Your task to perform on an android device: Clear the cart on walmart.com. Image 0: 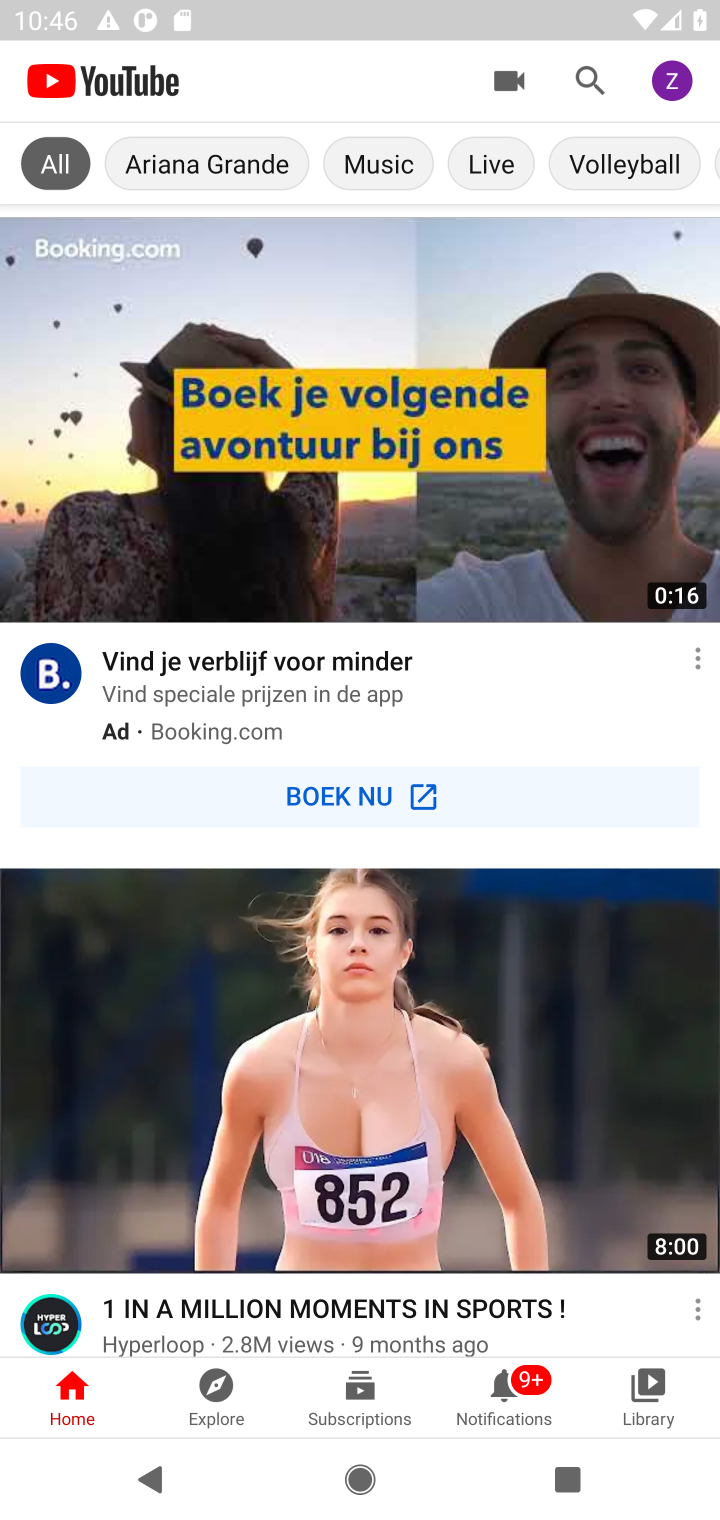
Step 0: press home button
Your task to perform on an android device: Clear the cart on walmart.com. Image 1: 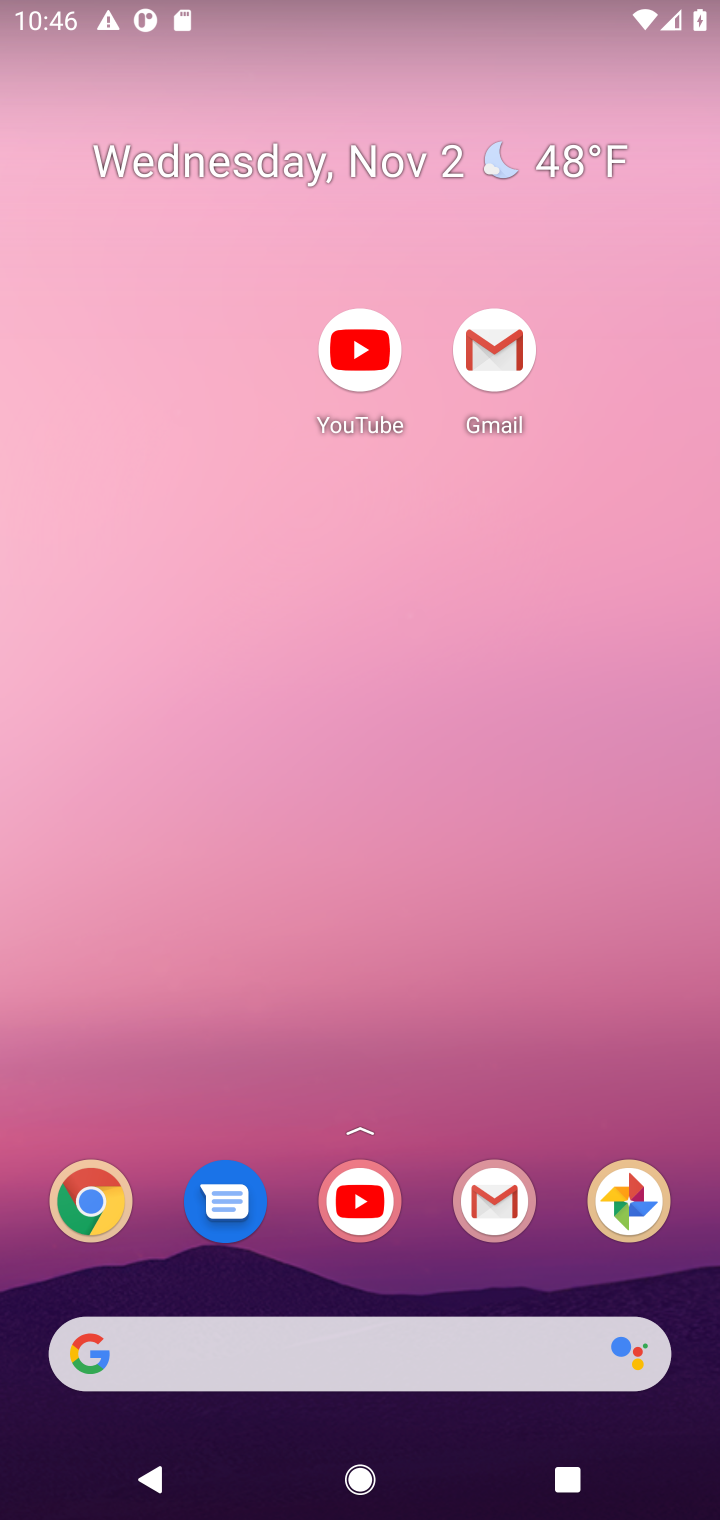
Step 1: drag from (280, 1266) to (165, 492)
Your task to perform on an android device: Clear the cart on walmart.com. Image 2: 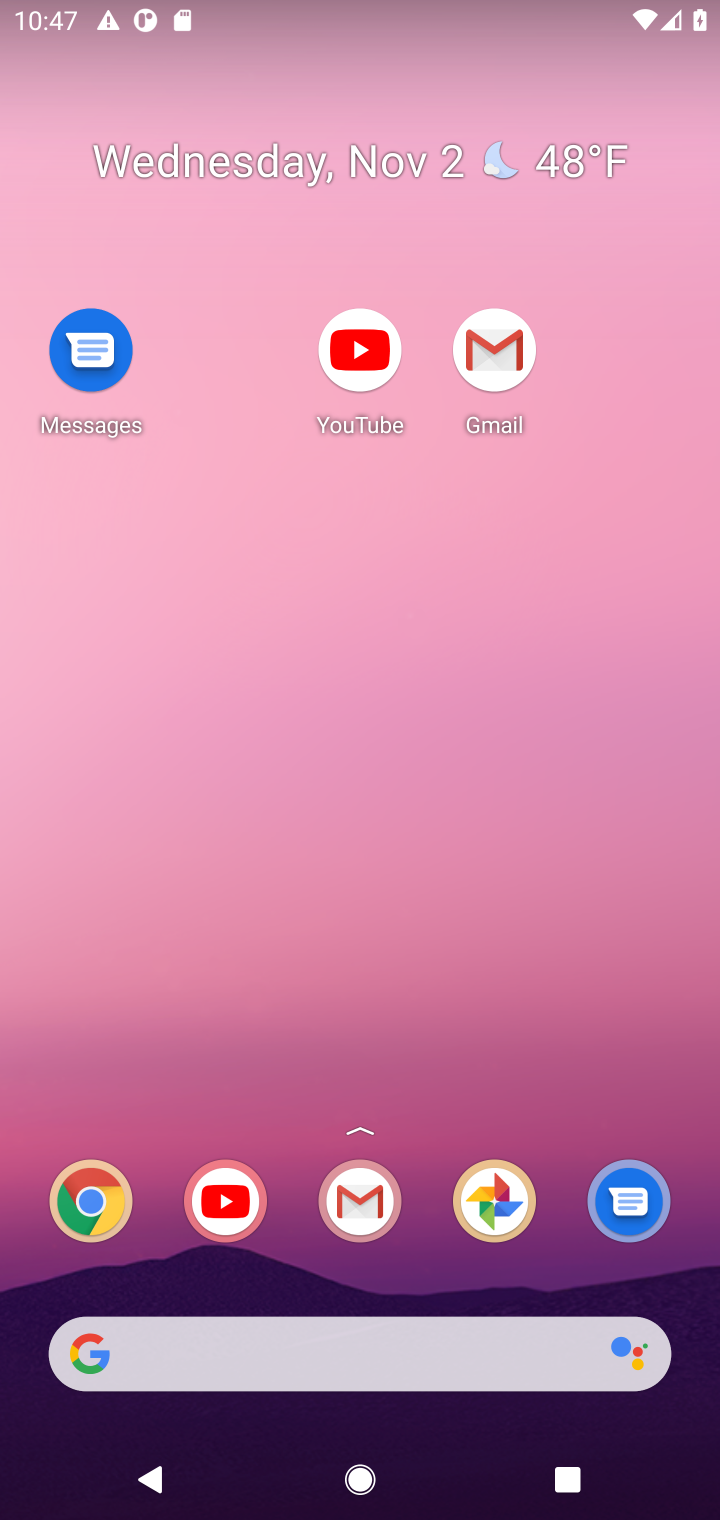
Step 2: drag from (437, 1300) to (503, 489)
Your task to perform on an android device: Clear the cart on walmart.com. Image 3: 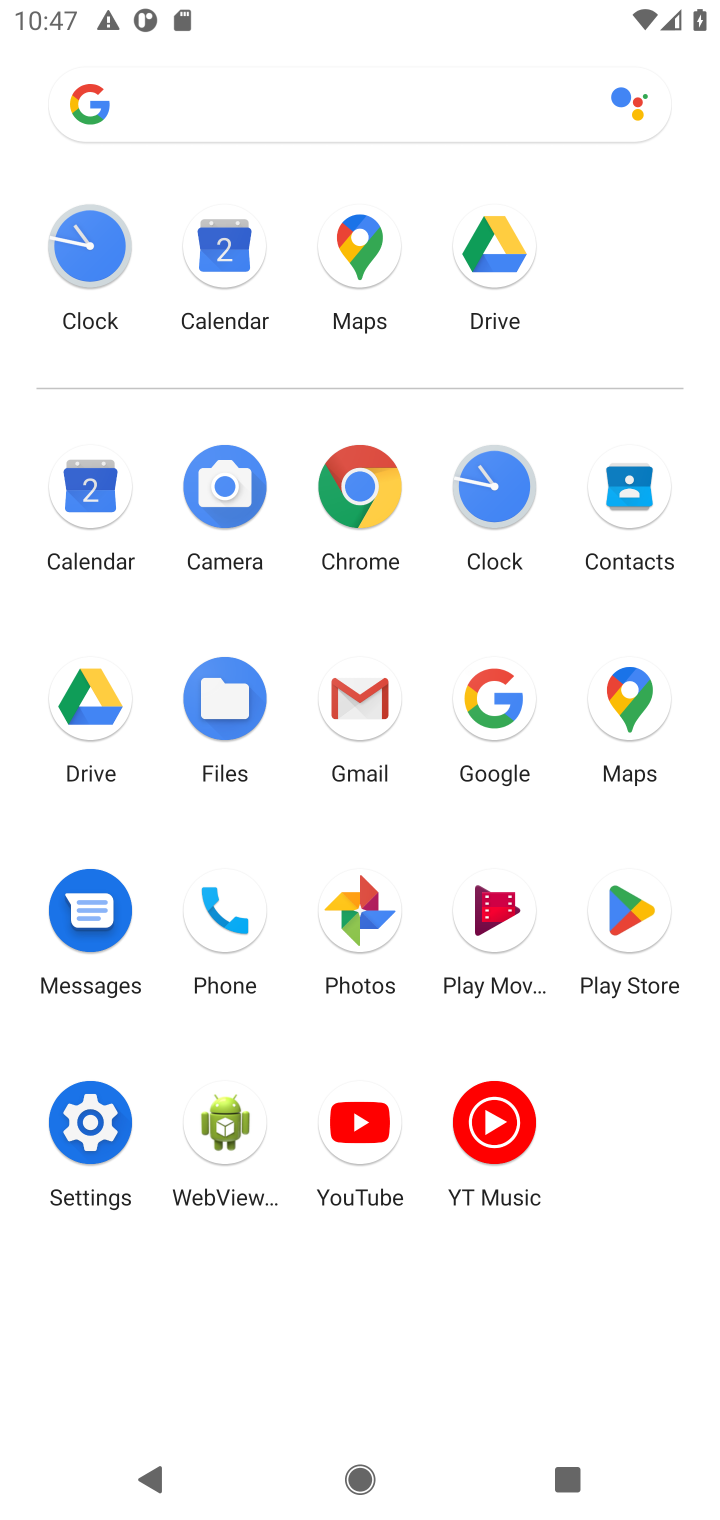
Step 3: click (362, 487)
Your task to perform on an android device: Clear the cart on walmart.com. Image 4: 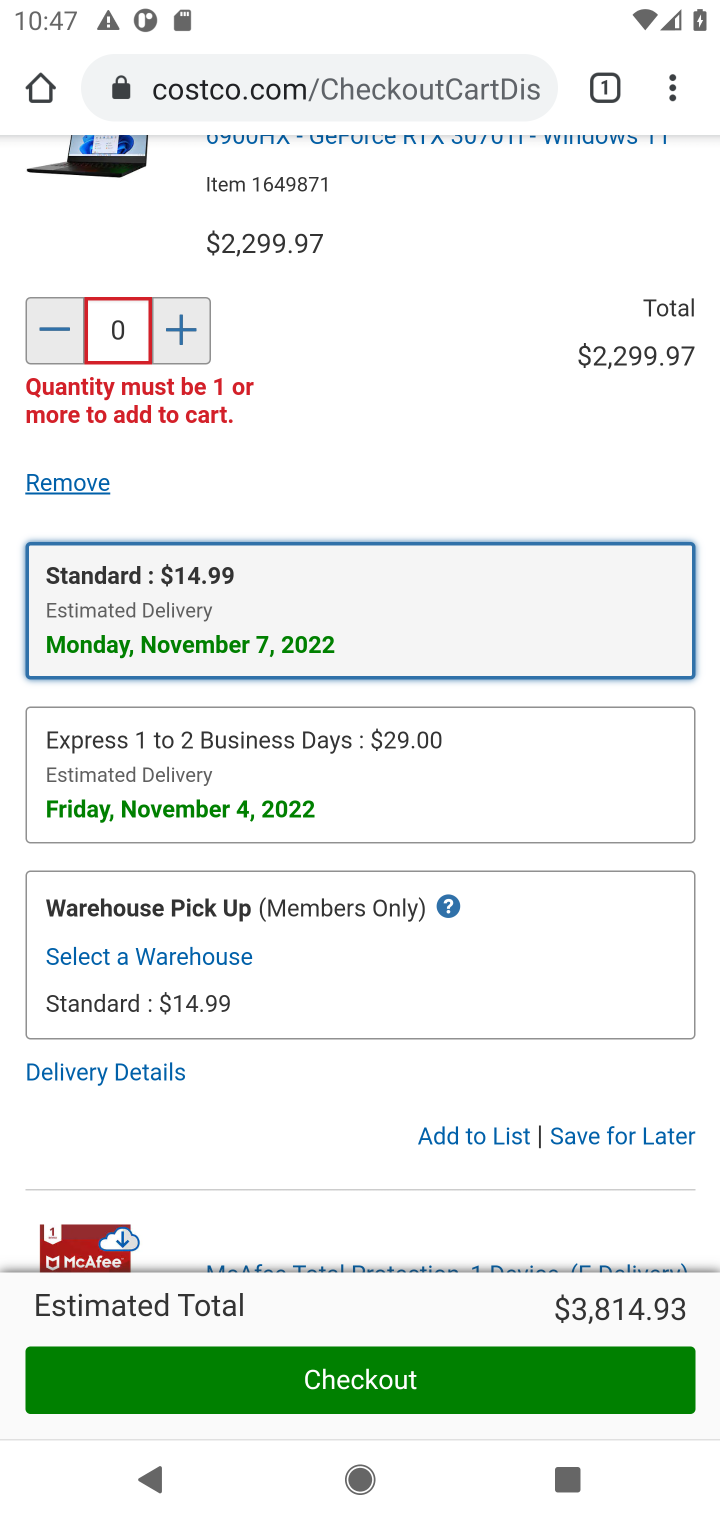
Step 4: click (378, 88)
Your task to perform on an android device: Clear the cart on walmart.com. Image 5: 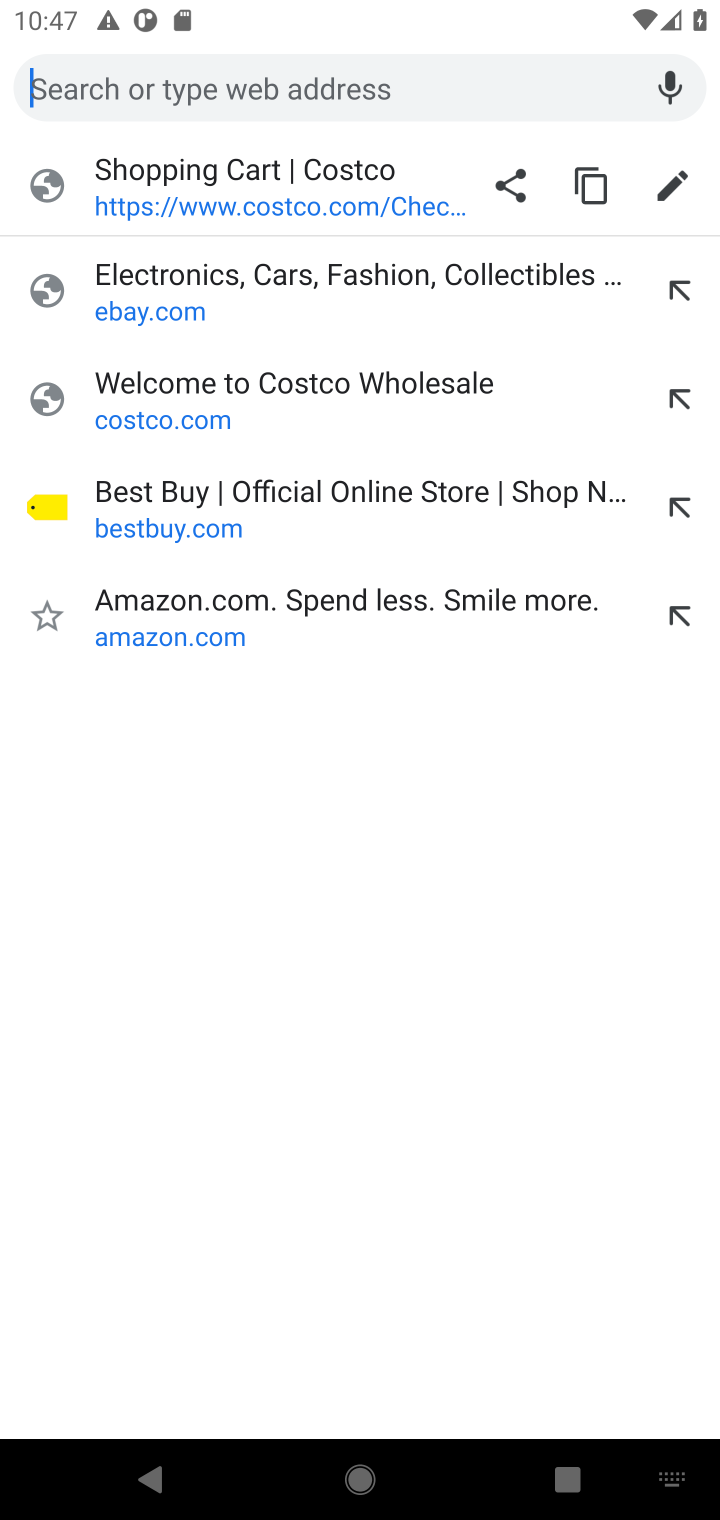
Step 5: type "walmart.com"
Your task to perform on an android device: Clear the cart on walmart.com. Image 6: 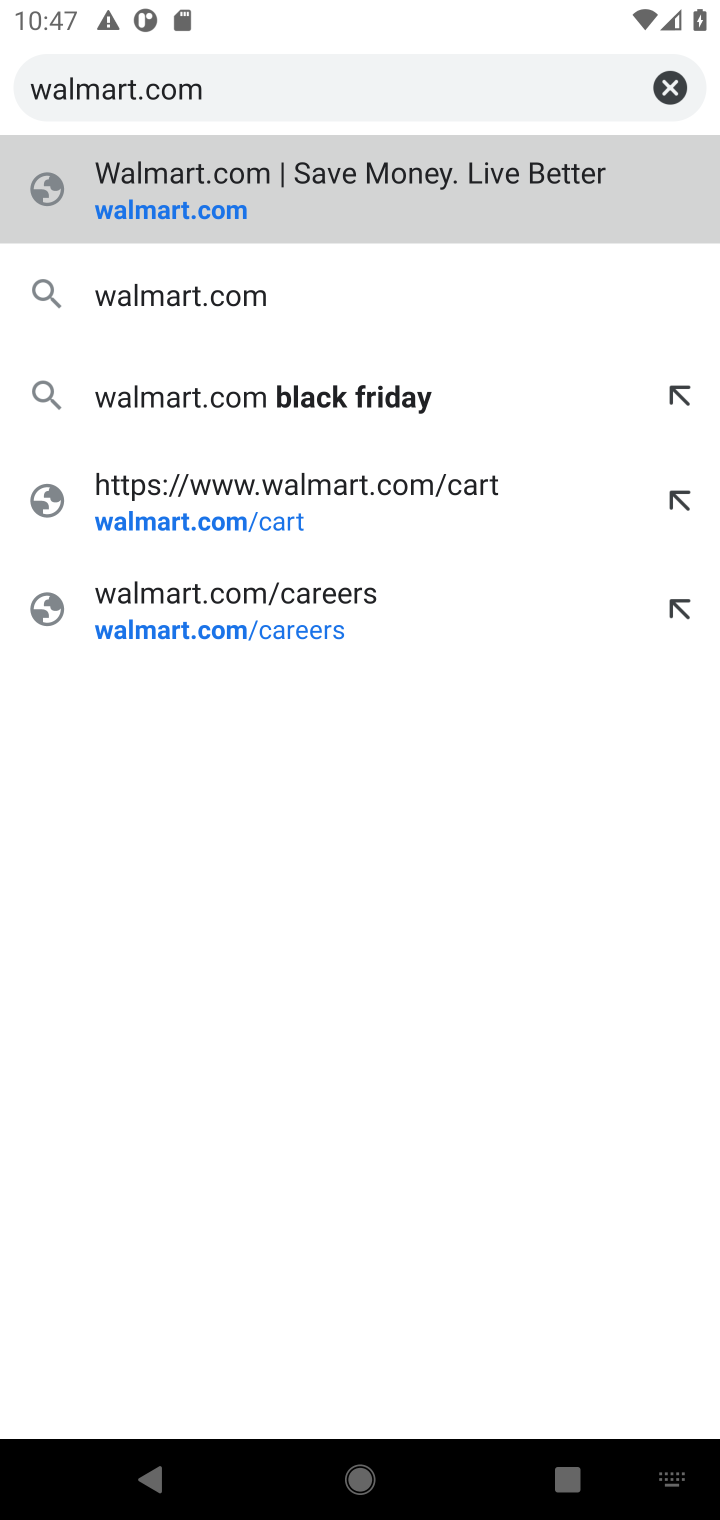
Step 6: press enter
Your task to perform on an android device: Clear the cart on walmart.com. Image 7: 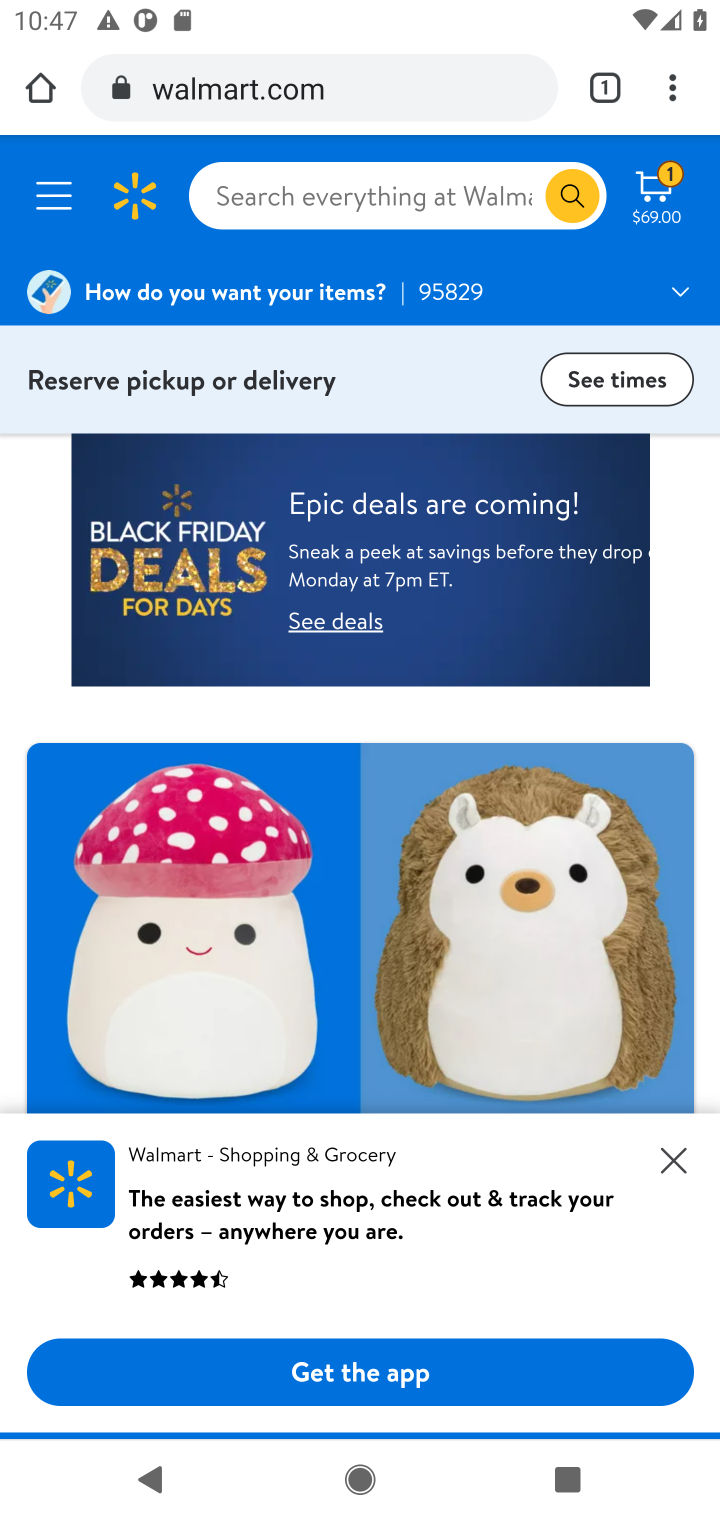
Step 7: click (656, 207)
Your task to perform on an android device: Clear the cart on walmart.com. Image 8: 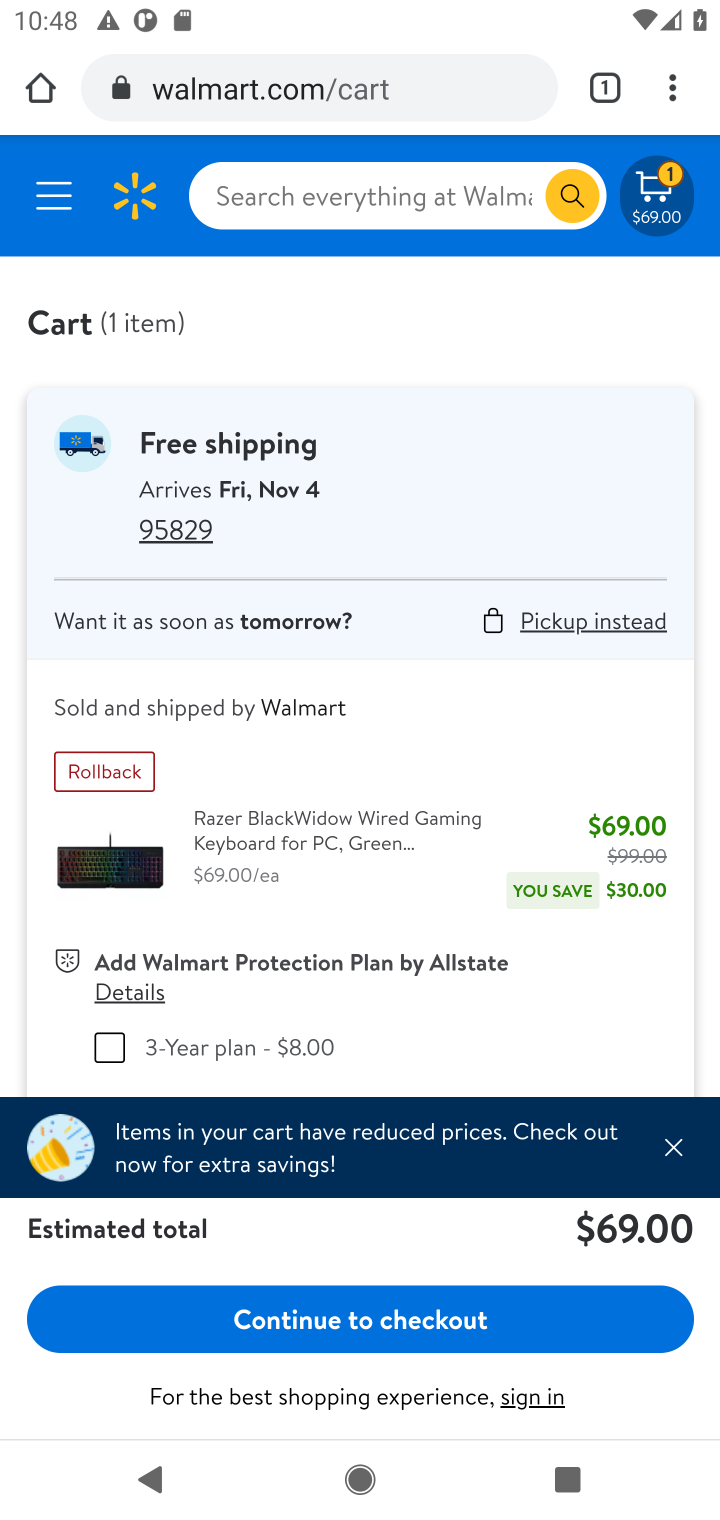
Step 8: drag from (350, 1037) to (355, 392)
Your task to perform on an android device: Clear the cart on walmart.com. Image 9: 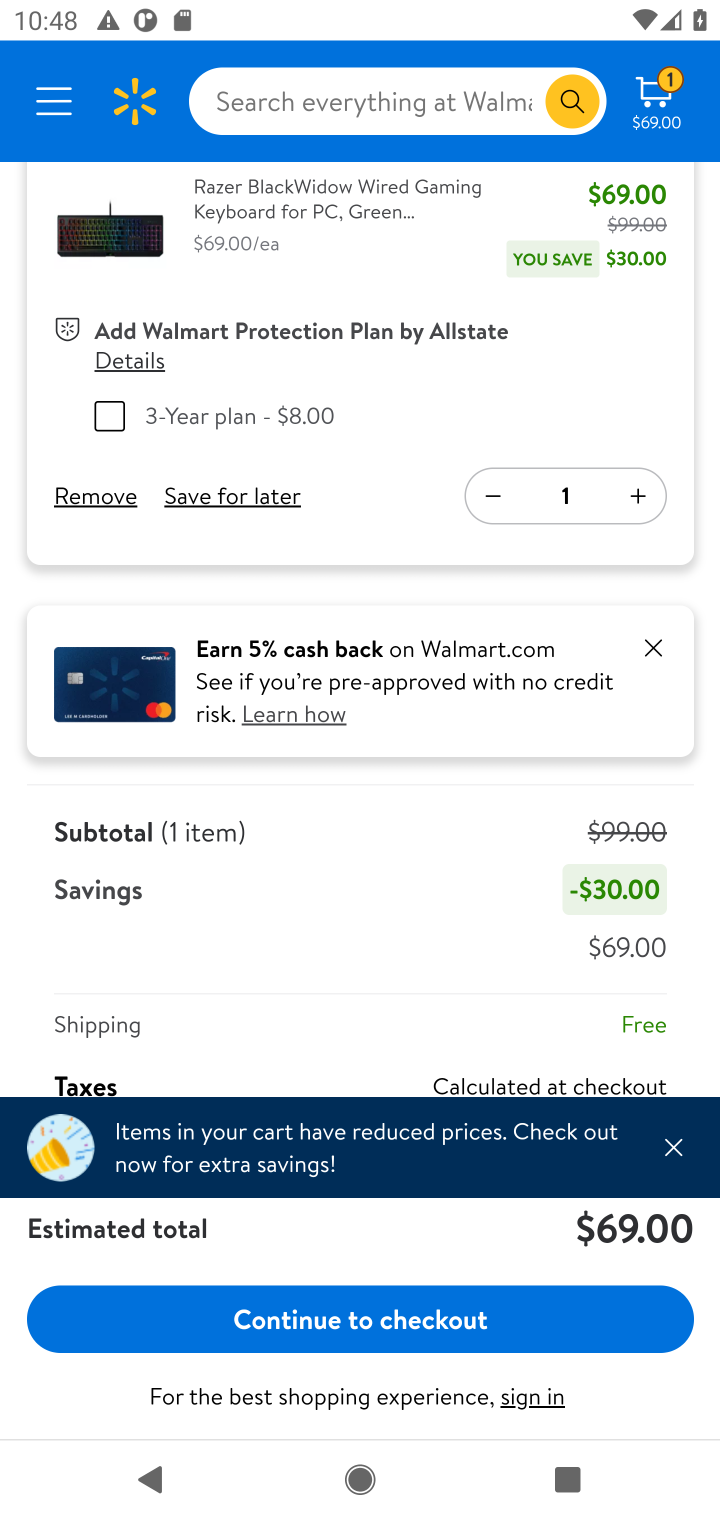
Step 9: click (90, 495)
Your task to perform on an android device: Clear the cart on walmart.com. Image 10: 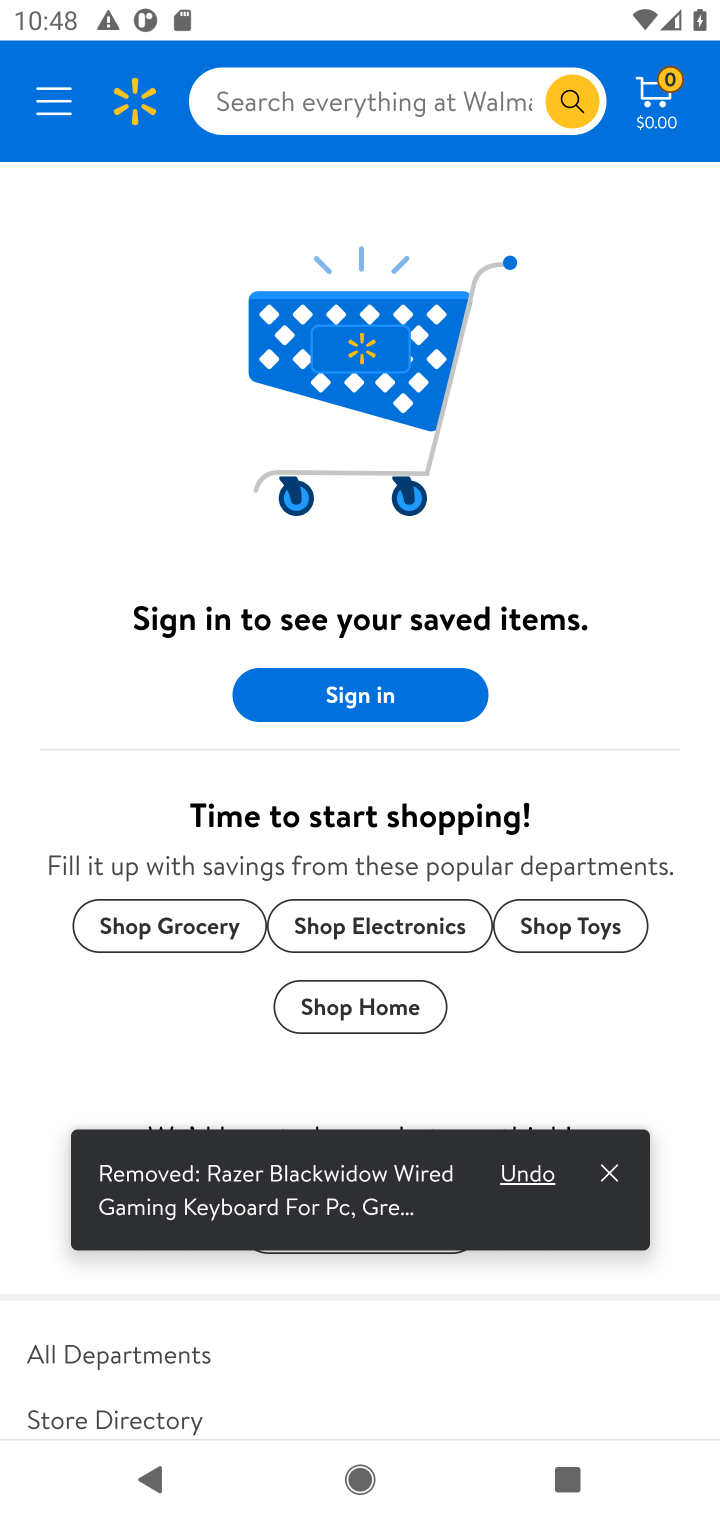
Step 10: task complete